Your task to perform on an android device: Open the stopwatch Image 0: 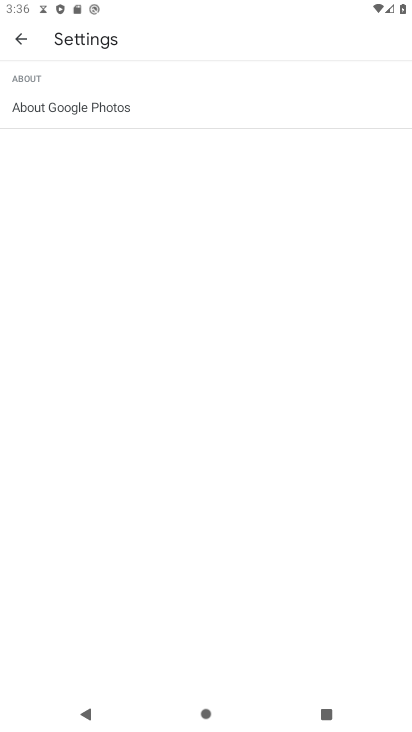
Step 0: press home button
Your task to perform on an android device: Open the stopwatch Image 1: 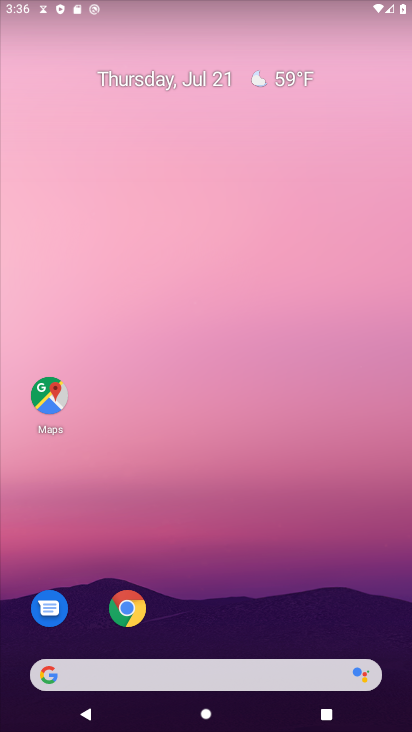
Step 1: drag from (155, 678) to (245, 151)
Your task to perform on an android device: Open the stopwatch Image 2: 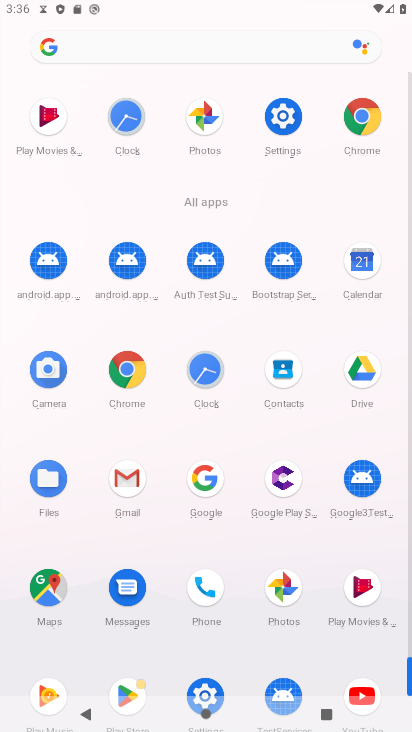
Step 2: click (207, 362)
Your task to perform on an android device: Open the stopwatch Image 3: 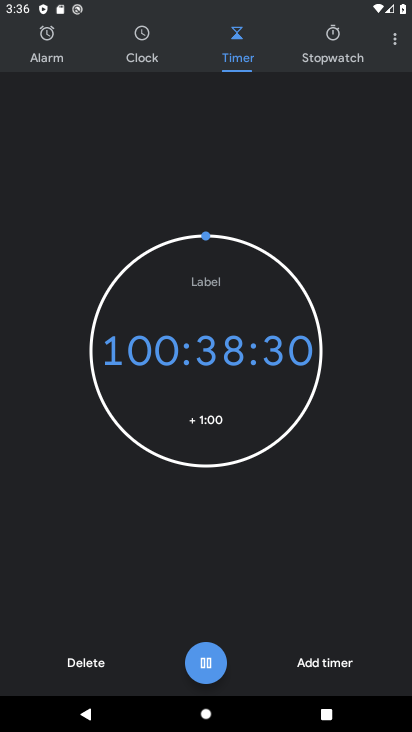
Step 3: click (338, 52)
Your task to perform on an android device: Open the stopwatch Image 4: 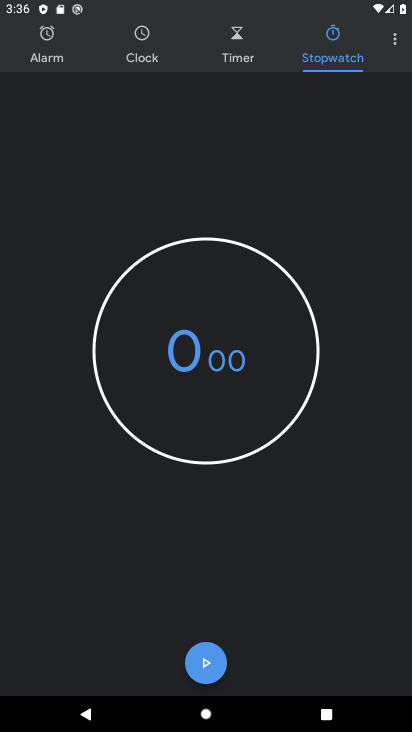
Step 4: task complete